Your task to perform on an android device: open sync settings in chrome Image 0: 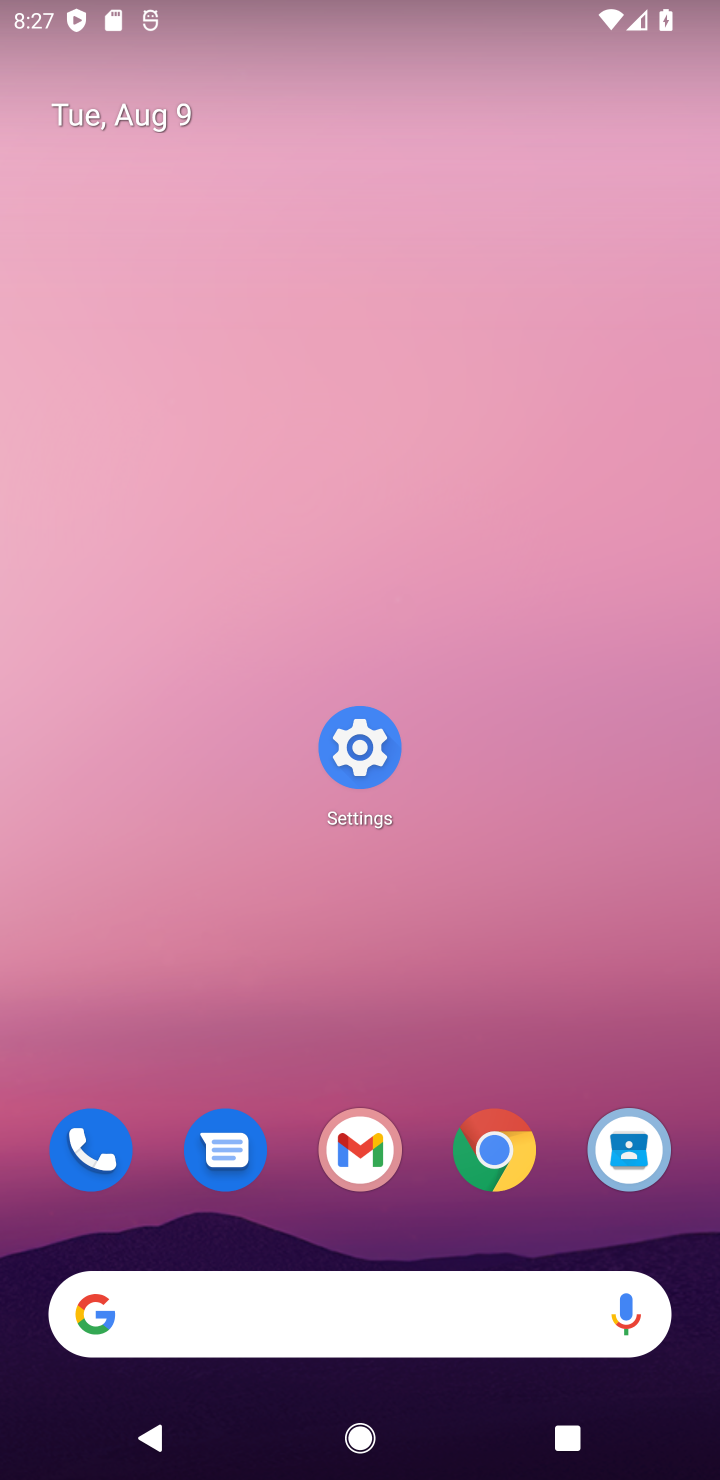
Step 0: press home button
Your task to perform on an android device: open sync settings in chrome Image 1: 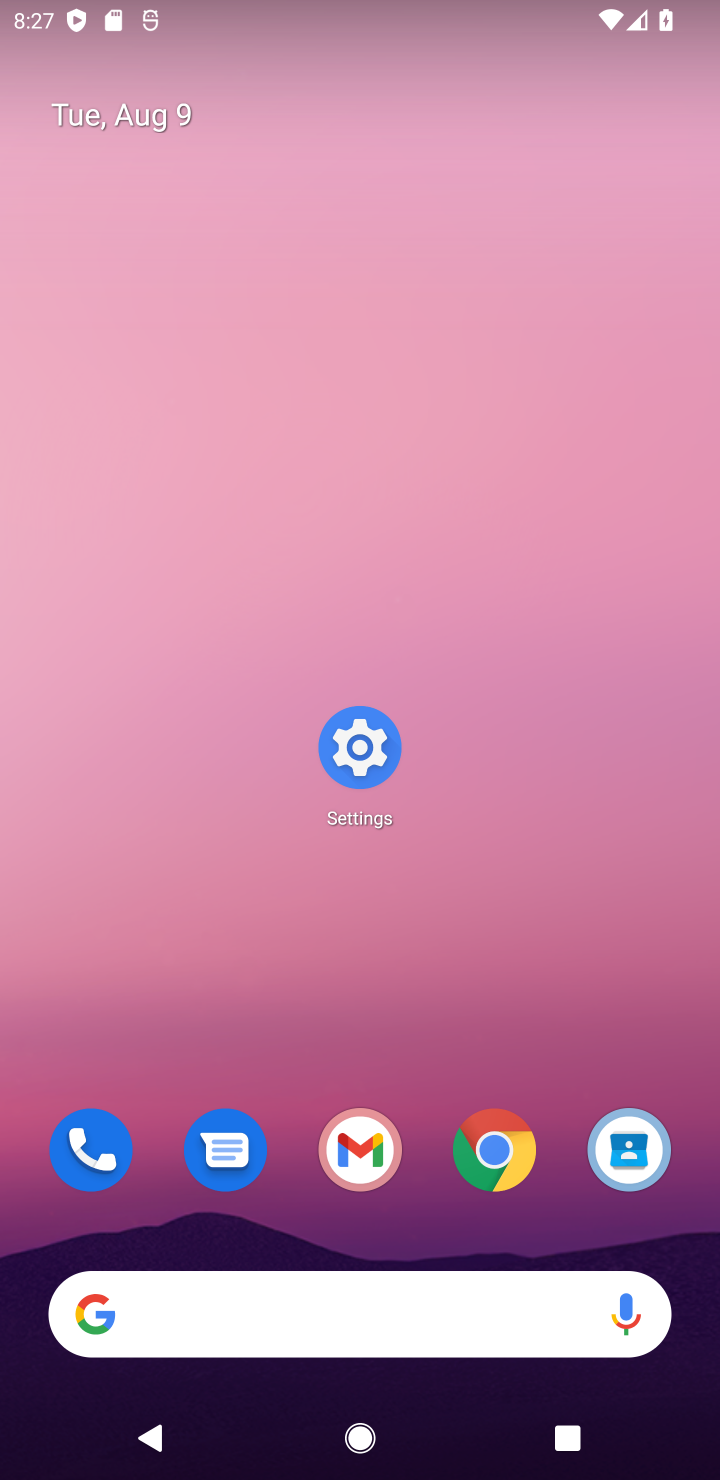
Step 1: click (504, 1149)
Your task to perform on an android device: open sync settings in chrome Image 2: 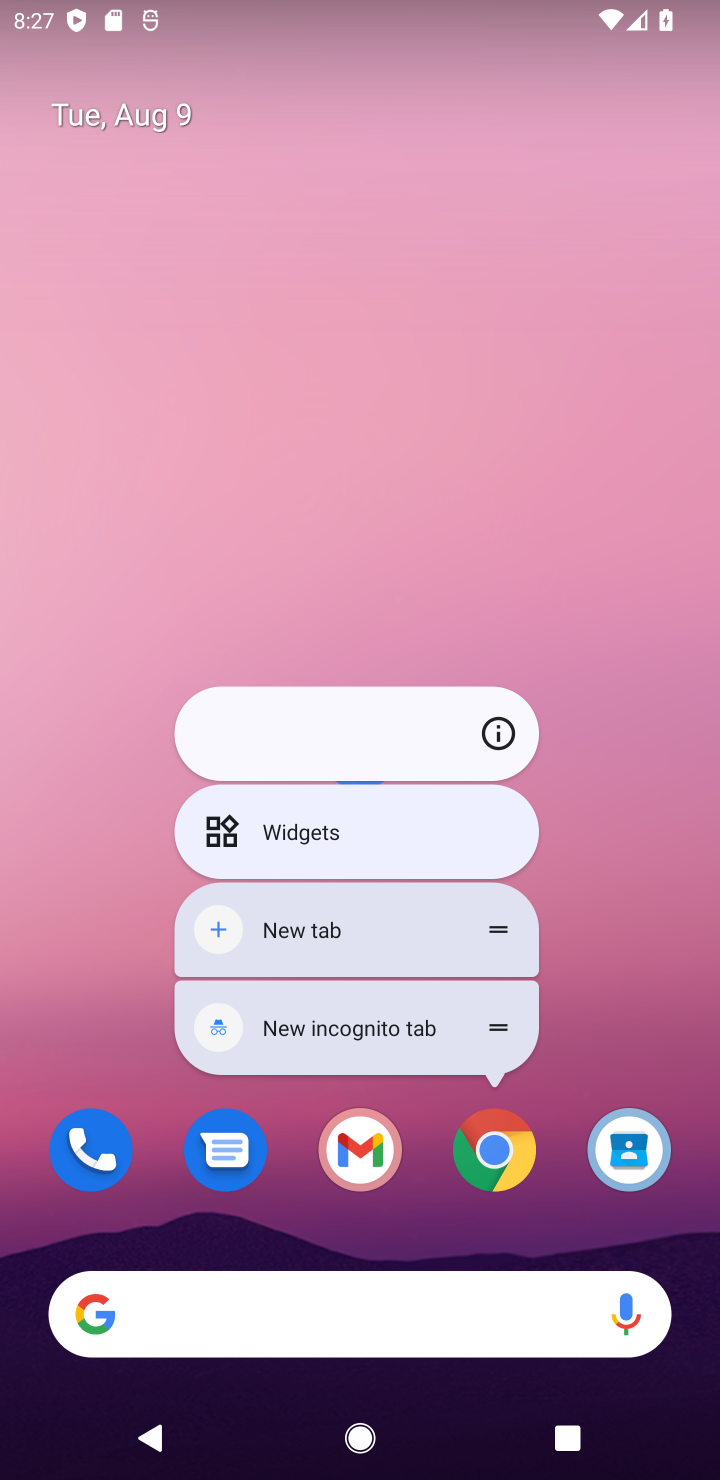
Step 2: click (484, 1150)
Your task to perform on an android device: open sync settings in chrome Image 3: 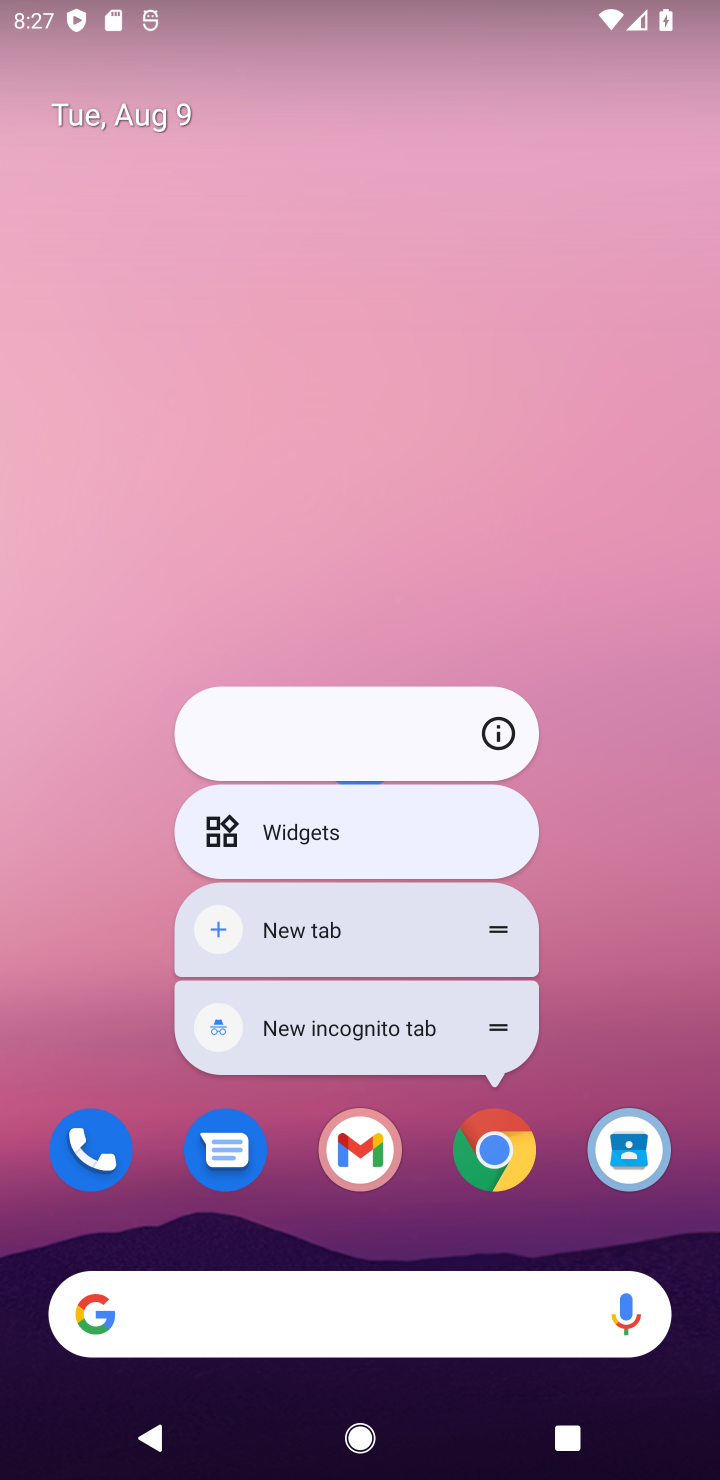
Step 3: click (484, 1161)
Your task to perform on an android device: open sync settings in chrome Image 4: 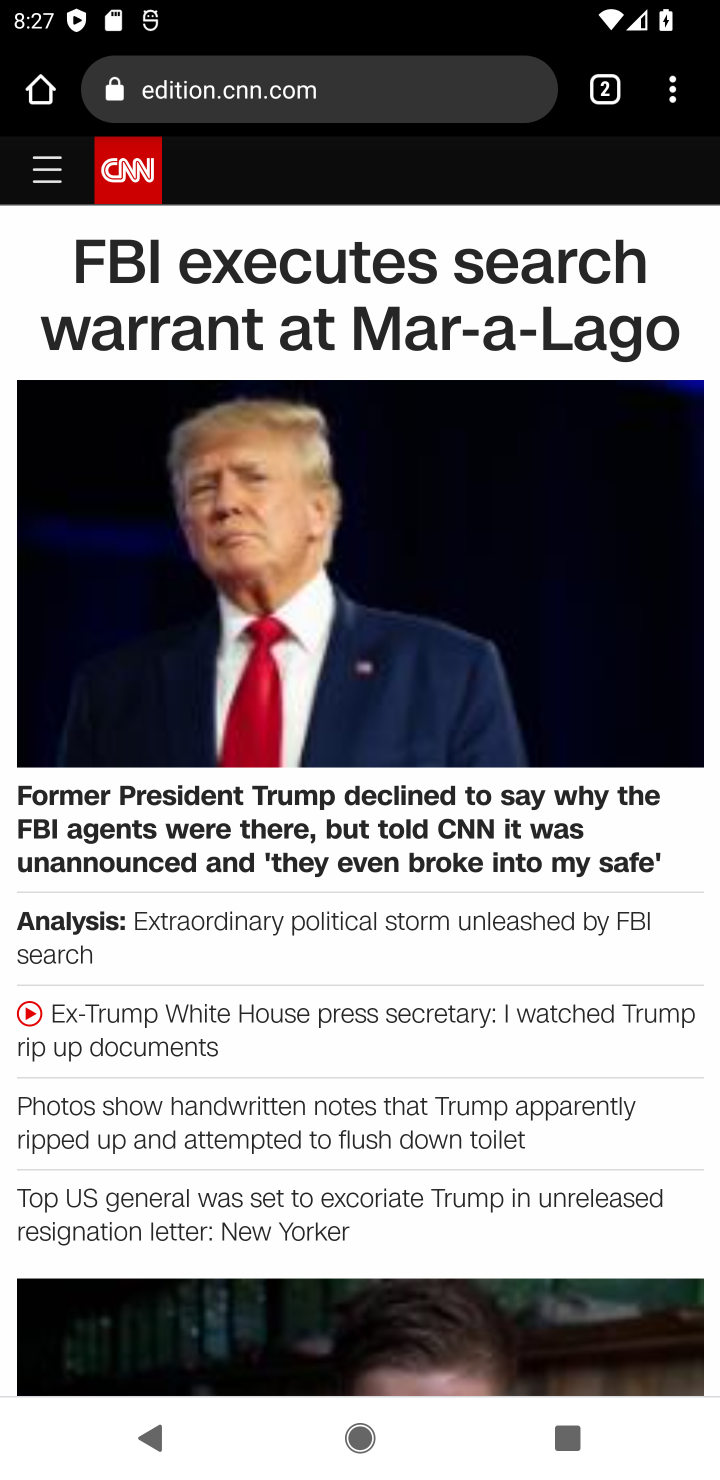
Step 4: drag from (674, 77) to (409, 1132)
Your task to perform on an android device: open sync settings in chrome Image 5: 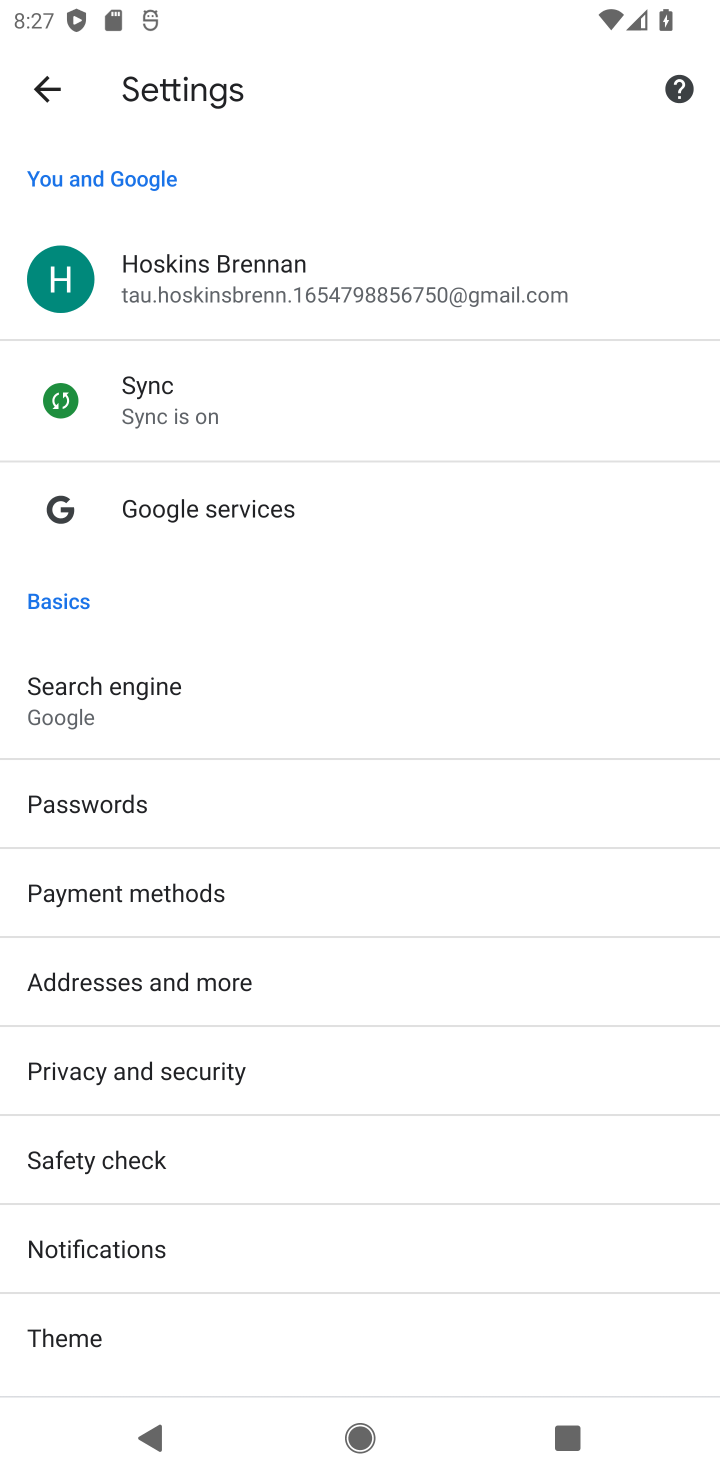
Step 5: click (255, 403)
Your task to perform on an android device: open sync settings in chrome Image 6: 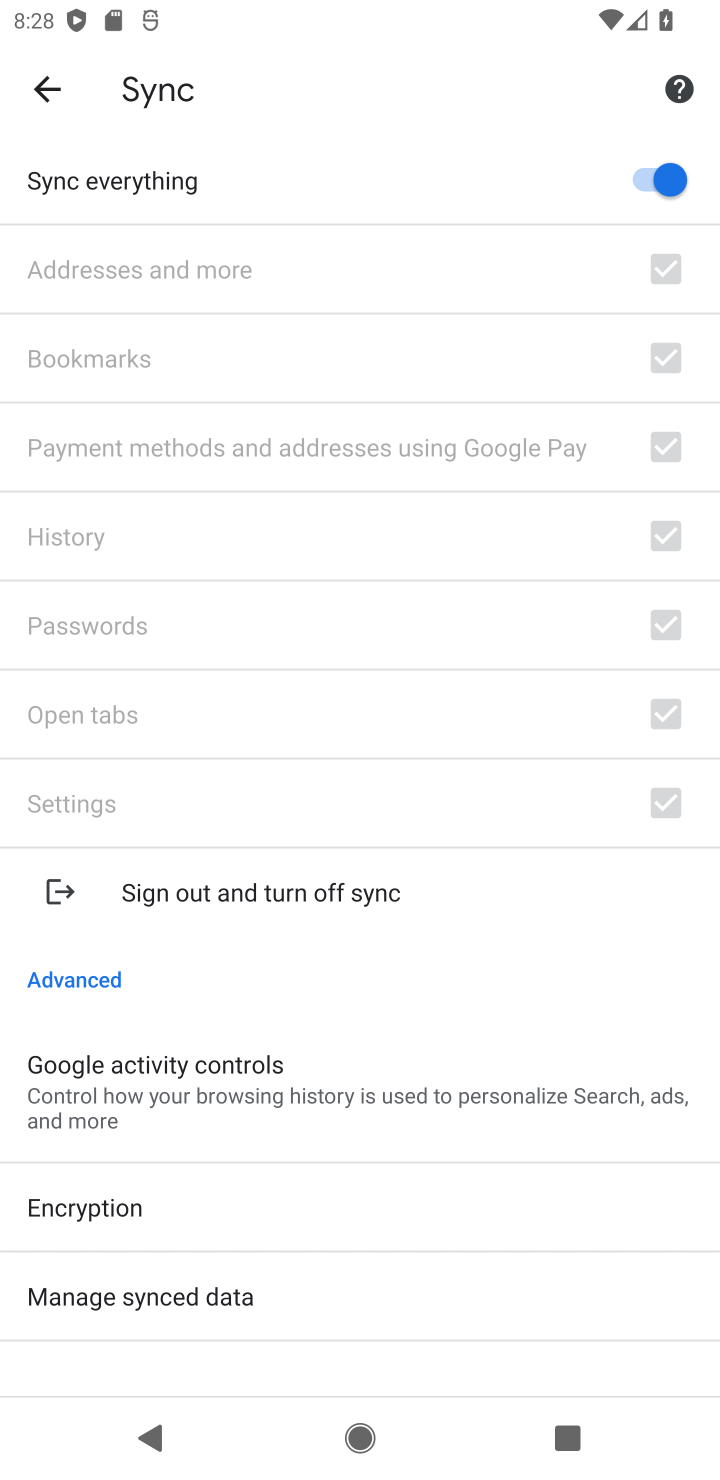
Step 6: task complete